Your task to perform on an android device: turn vacation reply on in the gmail app Image 0: 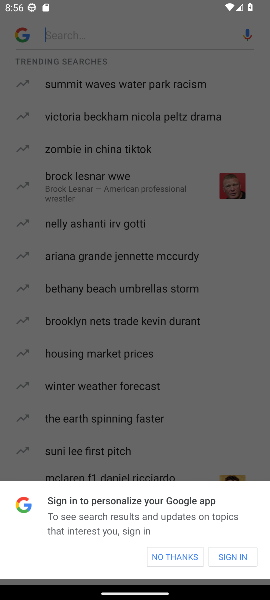
Step 0: press home button
Your task to perform on an android device: turn vacation reply on in the gmail app Image 1: 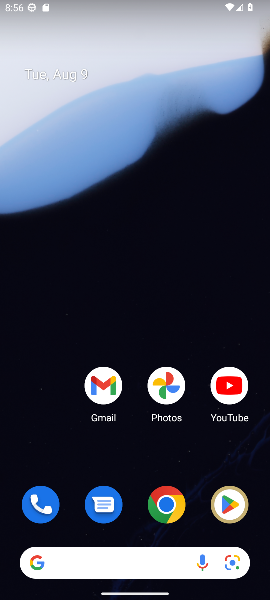
Step 1: click (106, 385)
Your task to perform on an android device: turn vacation reply on in the gmail app Image 2: 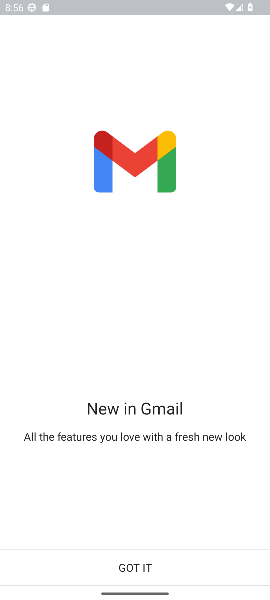
Step 2: click (137, 562)
Your task to perform on an android device: turn vacation reply on in the gmail app Image 3: 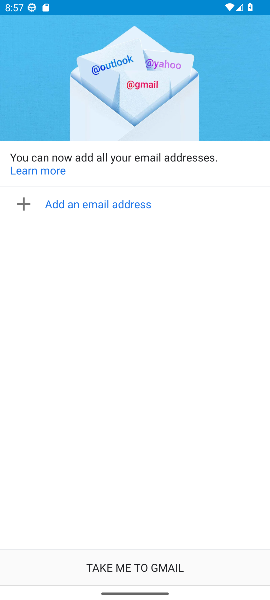
Step 3: click (140, 566)
Your task to perform on an android device: turn vacation reply on in the gmail app Image 4: 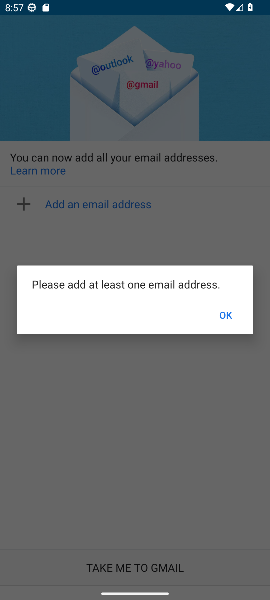
Step 4: click (226, 311)
Your task to perform on an android device: turn vacation reply on in the gmail app Image 5: 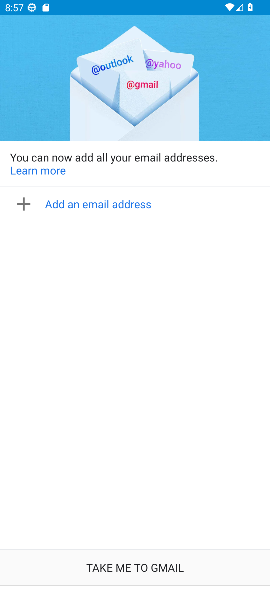
Step 5: task complete